Your task to perform on an android device: Open Amazon Image 0: 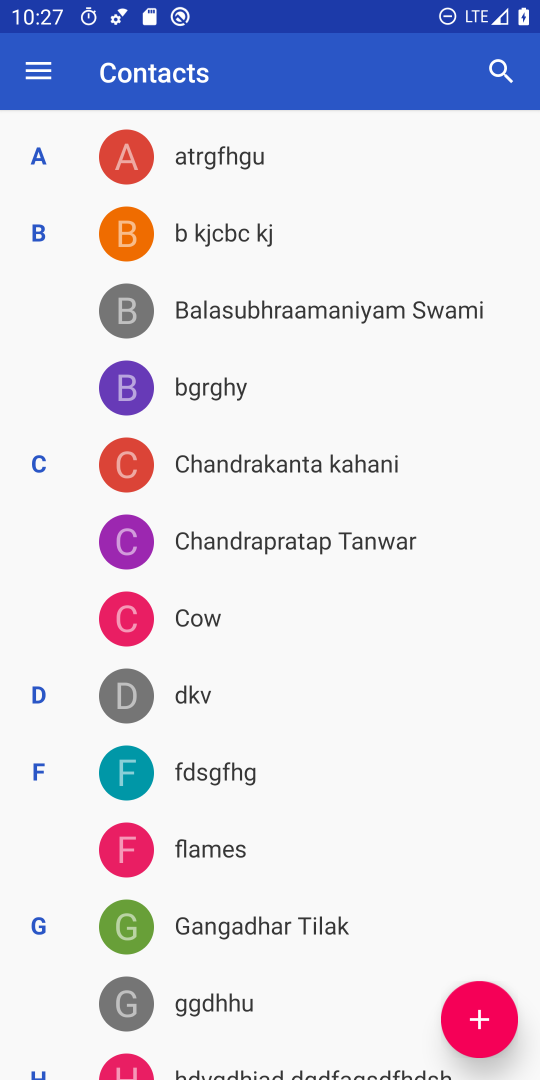
Step 0: press home button
Your task to perform on an android device: Open Amazon Image 1: 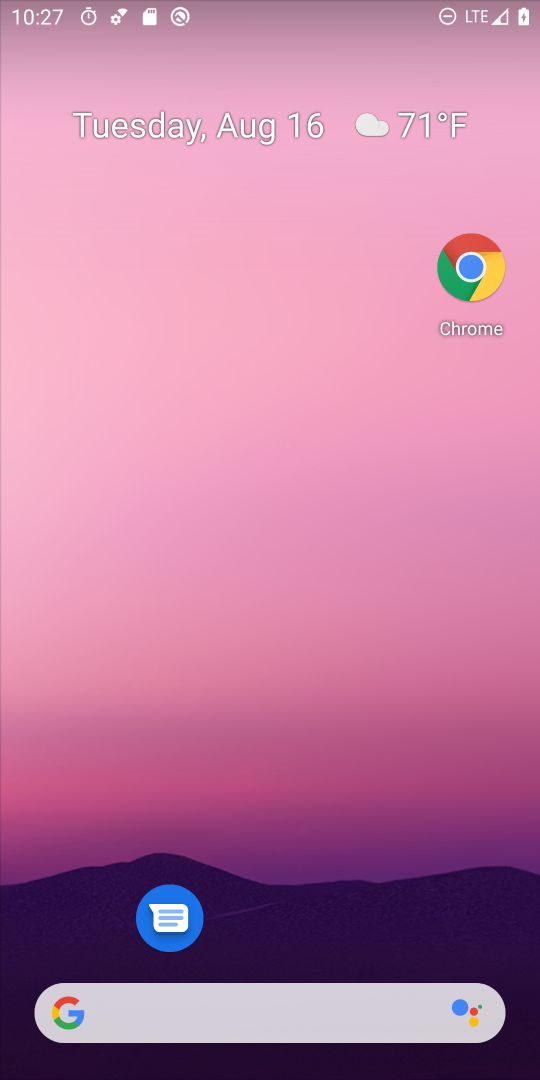
Step 1: drag from (308, 895) to (369, 576)
Your task to perform on an android device: Open Amazon Image 2: 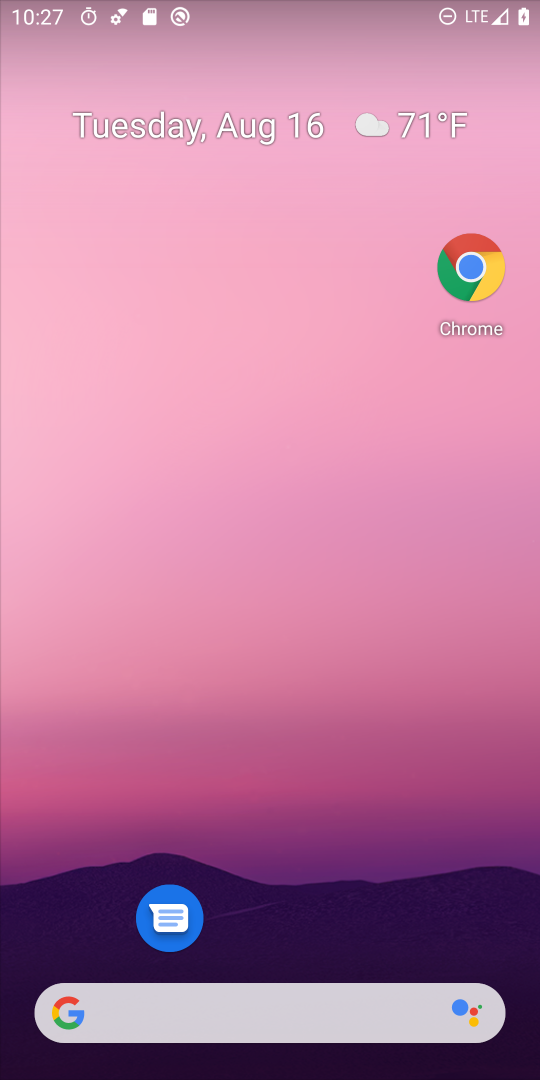
Step 2: drag from (327, 910) to (364, 393)
Your task to perform on an android device: Open Amazon Image 3: 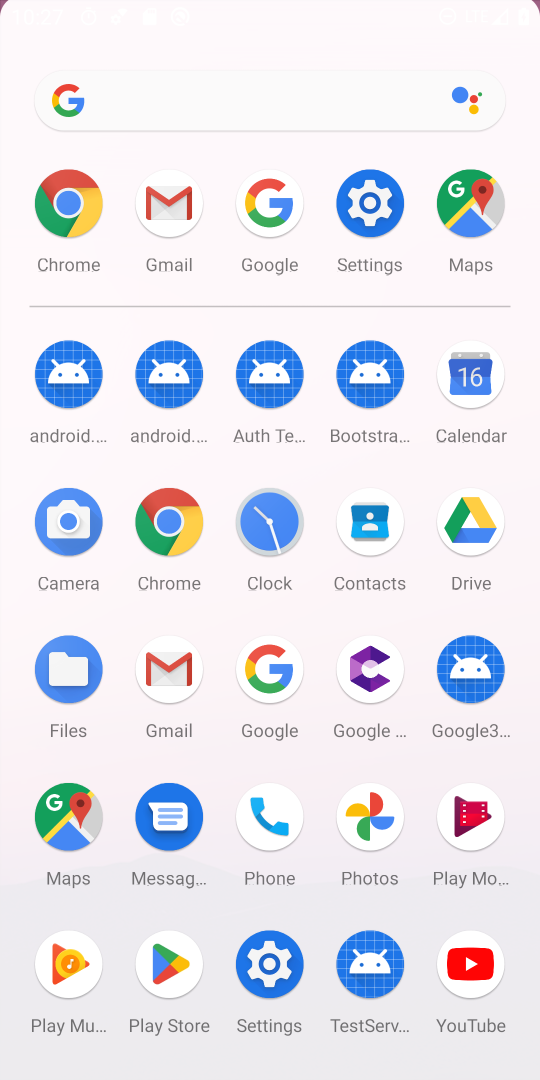
Step 3: click (364, 393)
Your task to perform on an android device: Open Amazon Image 4: 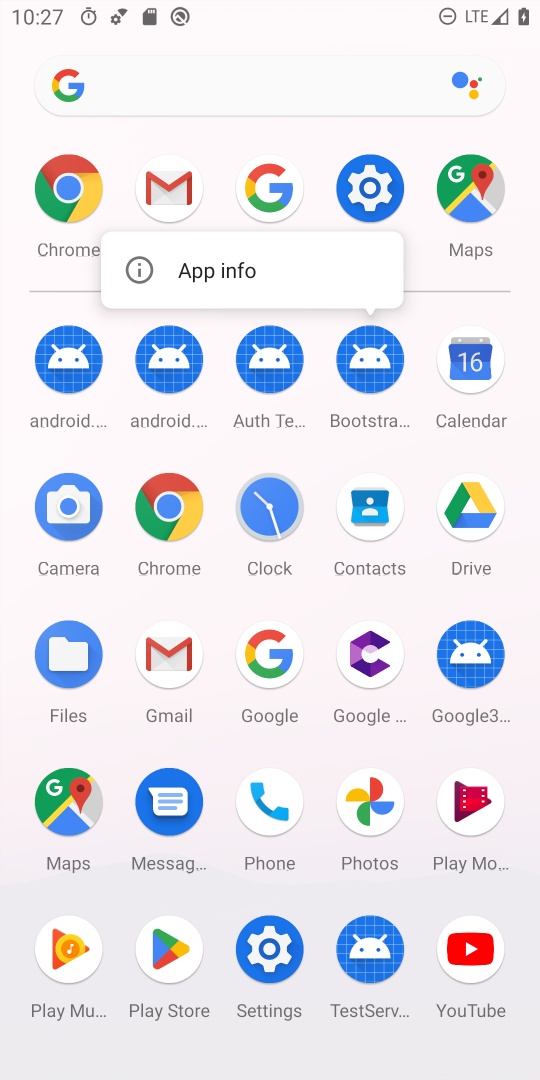
Step 4: click (163, 512)
Your task to perform on an android device: Open Amazon Image 5: 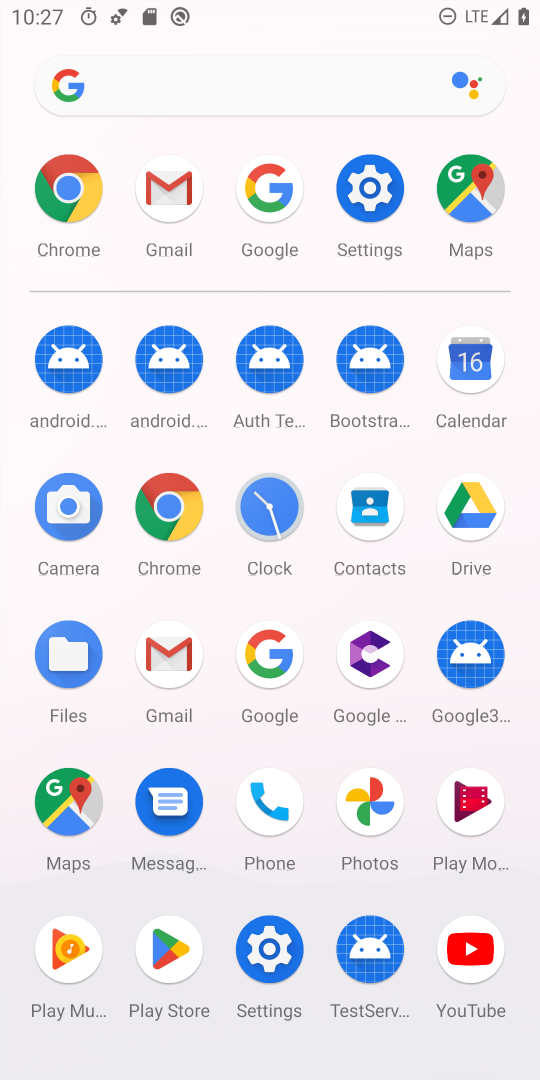
Step 5: click (72, 188)
Your task to perform on an android device: Open Amazon Image 6: 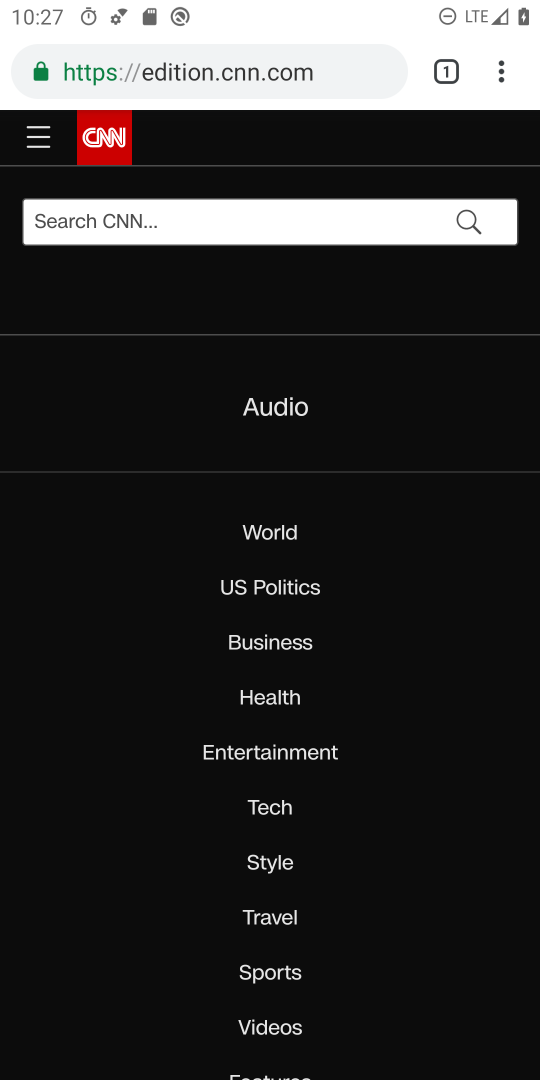
Step 6: drag from (433, 76) to (413, 257)
Your task to perform on an android device: Open Amazon Image 7: 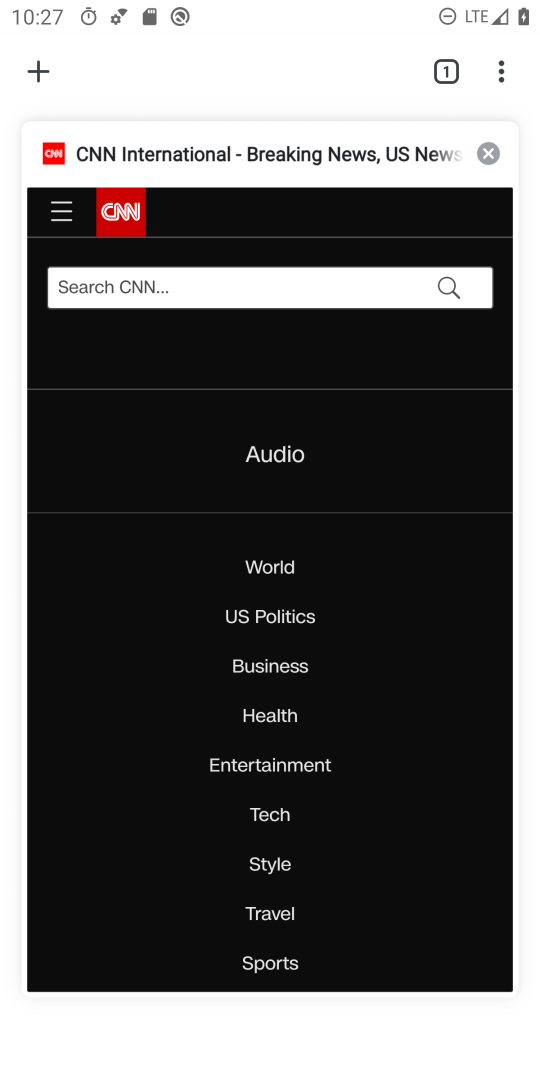
Step 7: click (45, 76)
Your task to perform on an android device: Open Amazon Image 8: 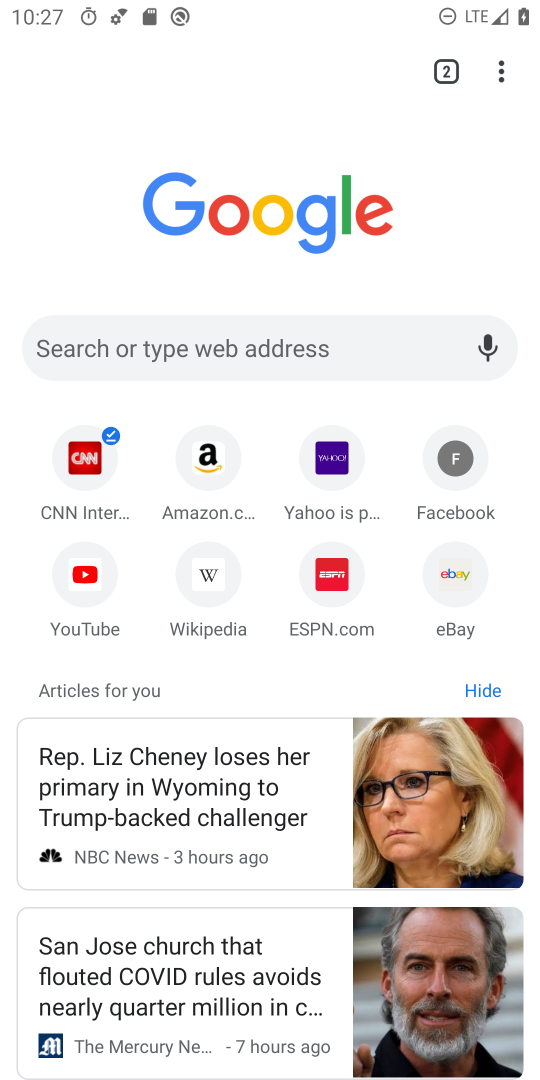
Step 8: click (211, 465)
Your task to perform on an android device: Open Amazon Image 9: 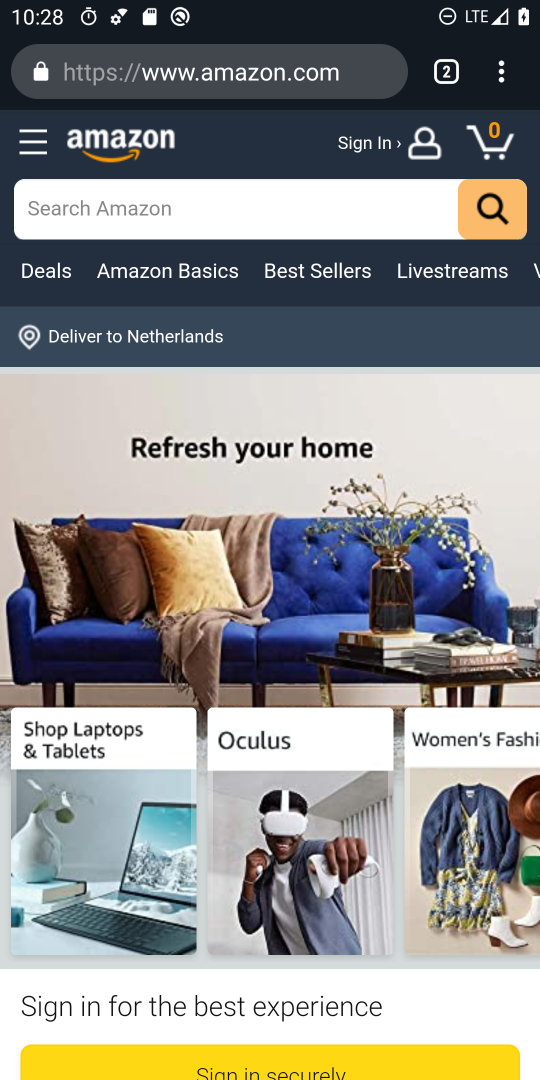
Step 9: task complete